Your task to perform on an android device: Show me recent news Image 0: 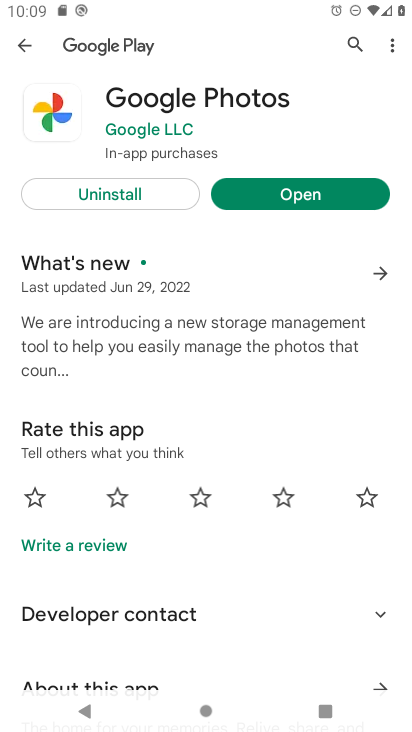
Step 0: press home button
Your task to perform on an android device: Show me recent news Image 1: 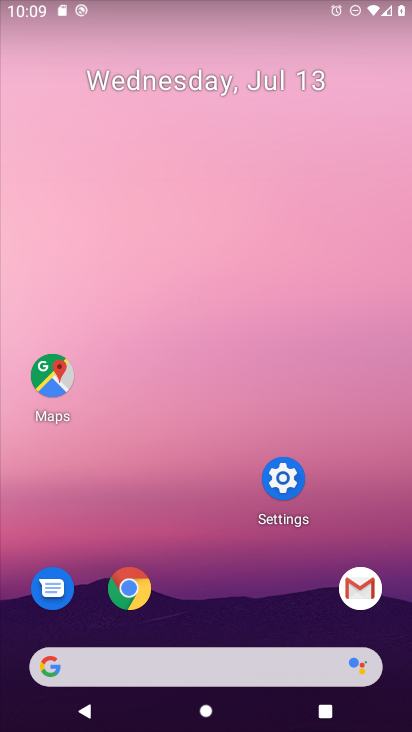
Step 1: click (188, 663)
Your task to perform on an android device: Show me recent news Image 2: 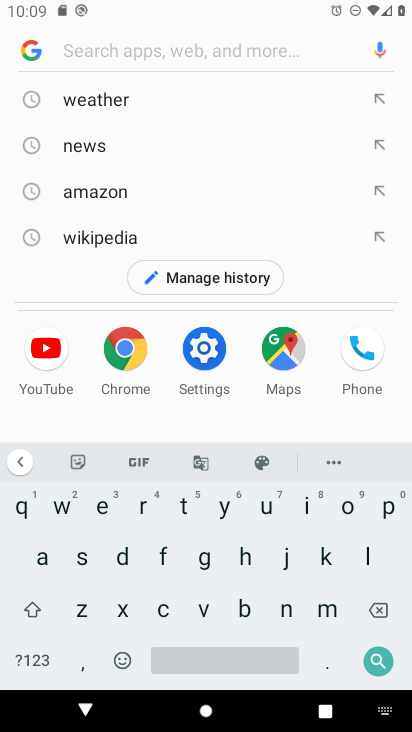
Step 2: click (144, 511)
Your task to perform on an android device: Show me recent news Image 3: 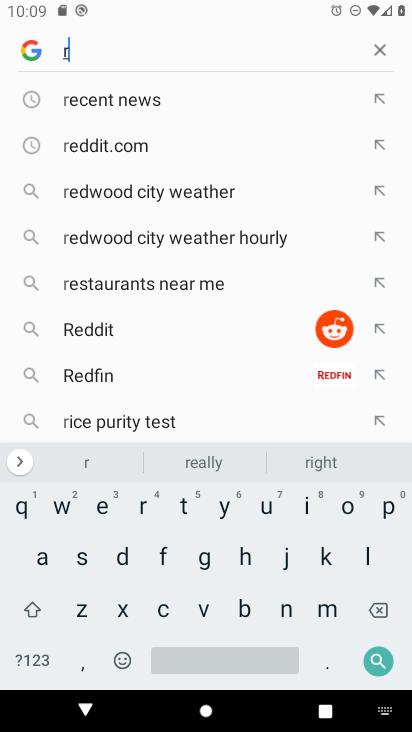
Step 3: click (97, 511)
Your task to perform on an android device: Show me recent news Image 4: 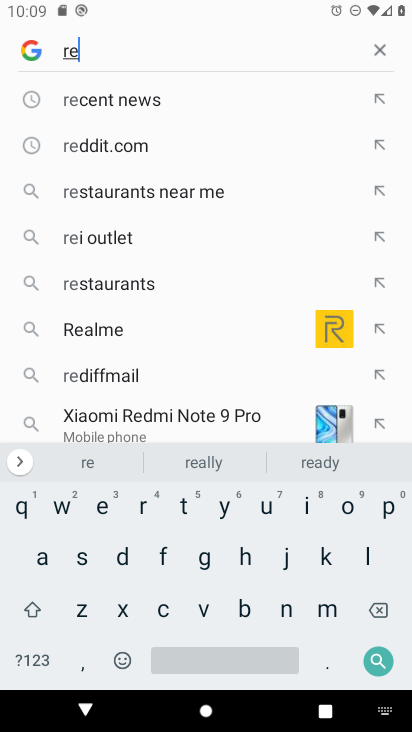
Step 4: click (133, 102)
Your task to perform on an android device: Show me recent news Image 5: 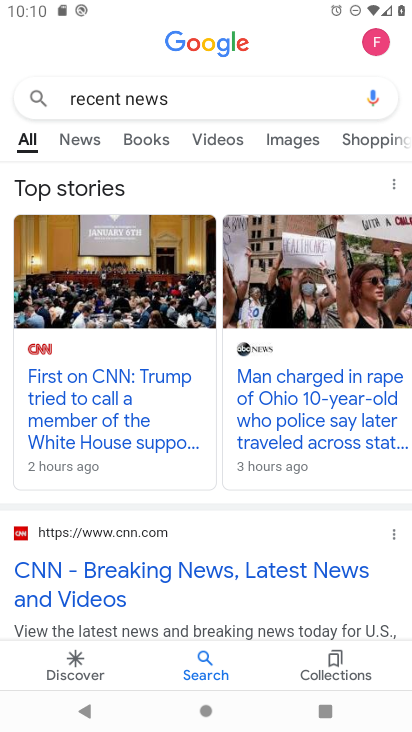
Step 5: task complete